Your task to perform on an android device: Open the phone app and click the voicemail tab. Image 0: 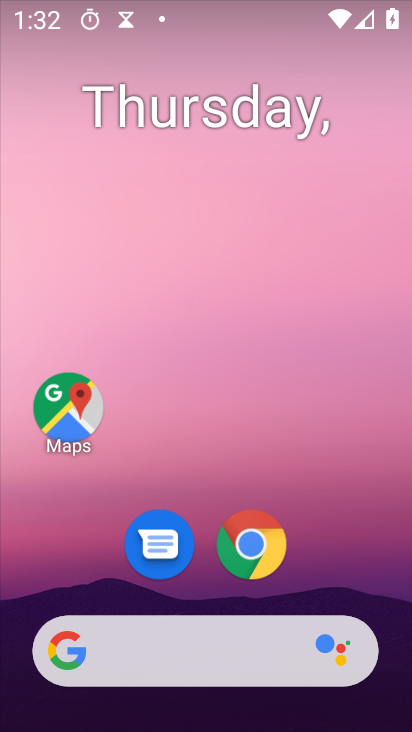
Step 0: drag from (232, 706) to (206, 190)
Your task to perform on an android device: Open the phone app and click the voicemail tab. Image 1: 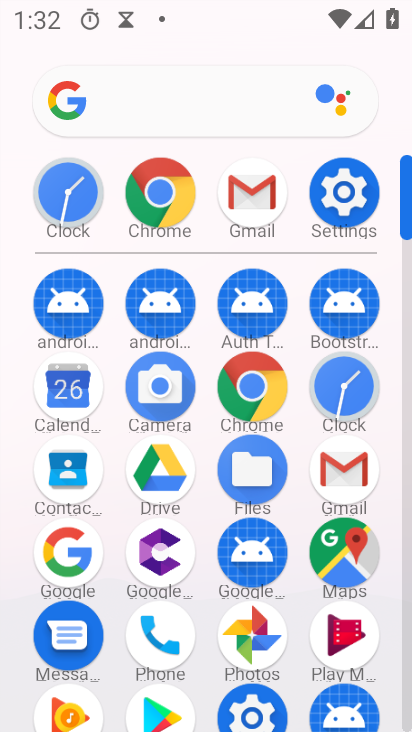
Step 1: click (163, 626)
Your task to perform on an android device: Open the phone app and click the voicemail tab. Image 2: 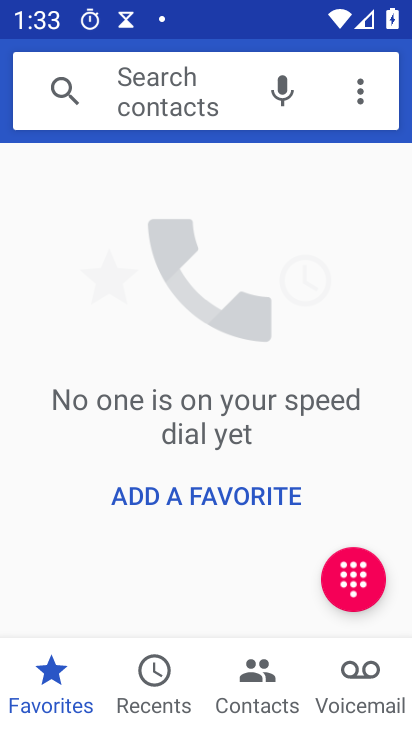
Step 2: click (366, 691)
Your task to perform on an android device: Open the phone app and click the voicemail tab. Image 3: 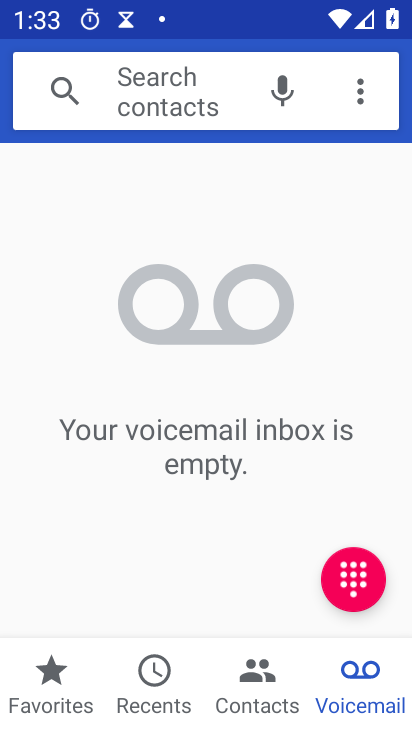
Step 3: task complete